Your task to perform on an android device: choose inbox layout in the gmail app Image 0: 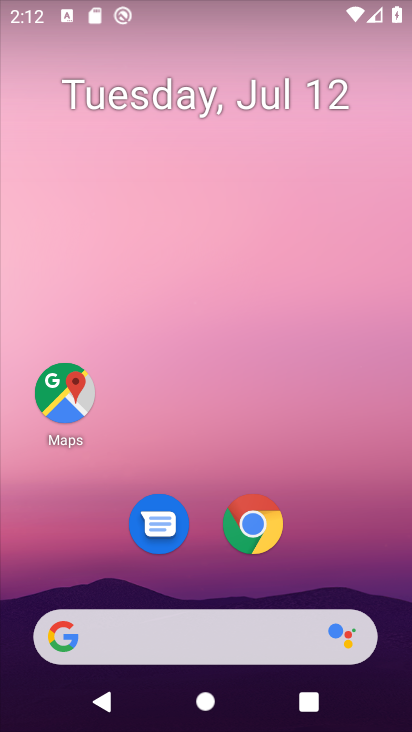
Step 0: drag from (318, 549) to (340, 64)
Your task to perform on an android device: choose inbox layout in the gmail app Image 1: 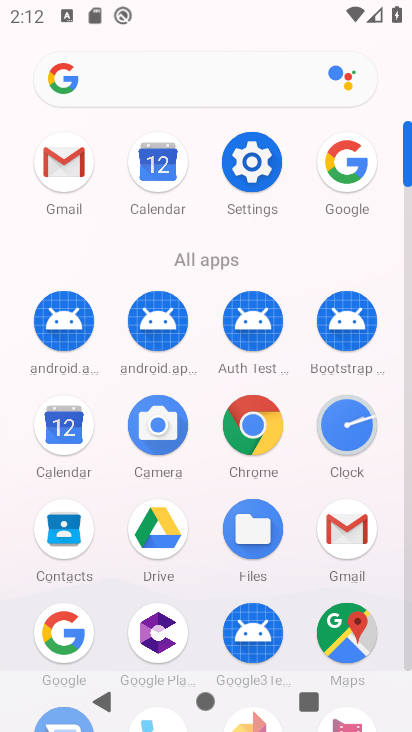
Step 1: click (65, 156)
Your task to perform on an android device: choose inbox layout in the gmail app Image 2: 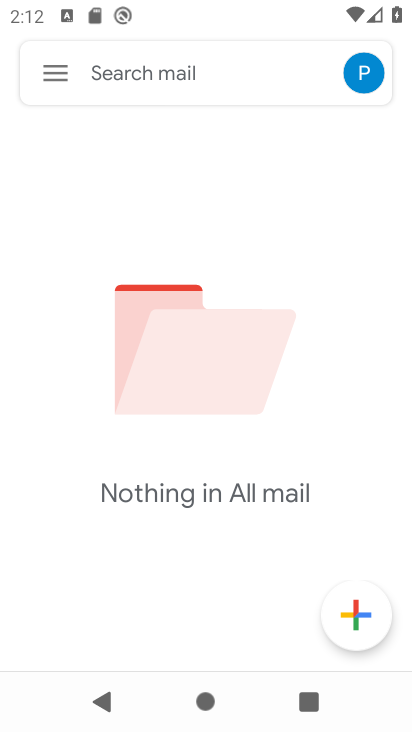
Step 2: click (54, 70)
Your task to perform on an android device: choose inbox layout in the gmail app Image 3: 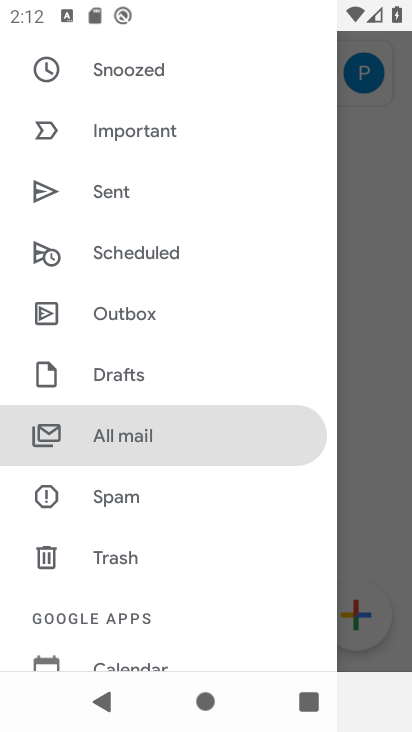
Step 3: drag from (159, 491) to (225, 64)
Your task to perform on an android device: choose inbox layout in the gmail app Image 4: 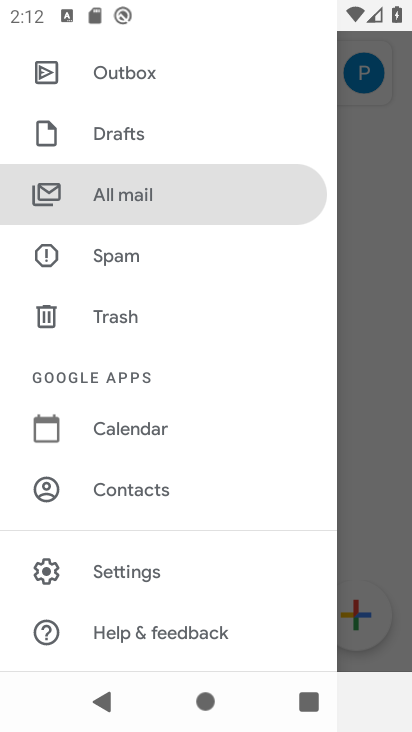
Step 4: click (146, 567)
Your task to perform on an android device: choose inbox layout in the gmail app Image 5: 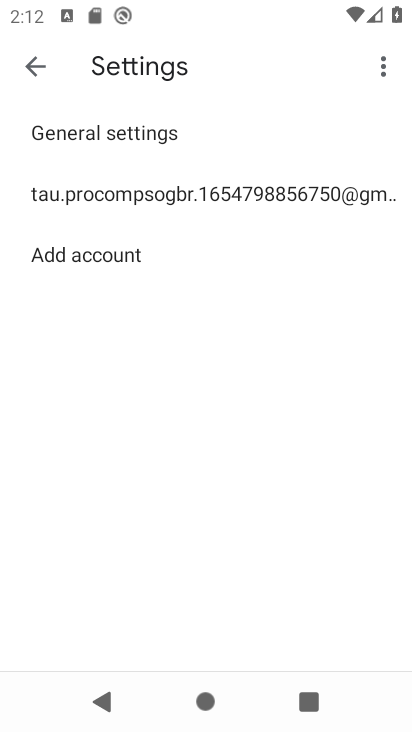
Step 5: click (182, 189)
Your task to perform on an android device: choose inbox layout in the gmail app Image 6: 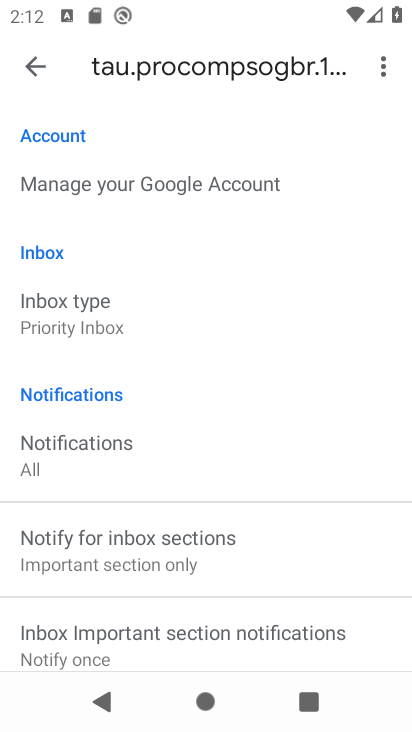
Step 6: click (93, 312)
Your task to perform on an android device: choose inbox layout in the gmail app Image 7: 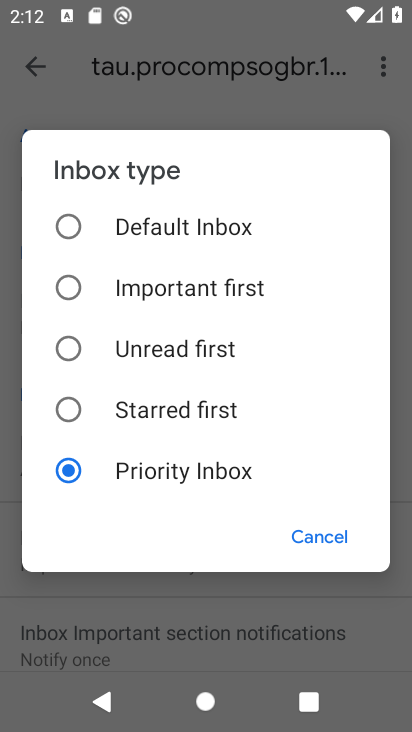
Step 7: click (70, 215)
Your task to perform on an android device: choose inbox layout in the gmail app Image 8: 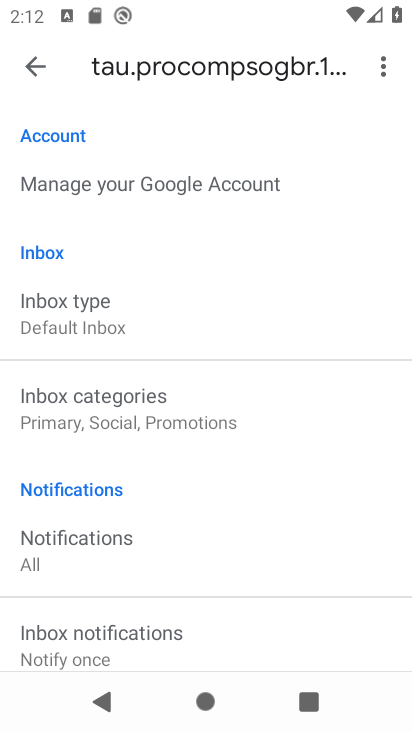
Step 8: task complete